Your task to perform on an android device: turn on data saver in the chrome app Image 0: 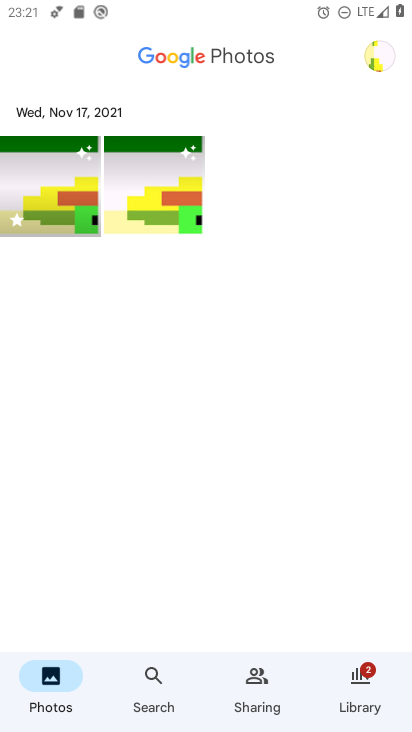
Step 0: press home button
Your task to perform on an android device: turn on data saver in the chrome app Image 1: 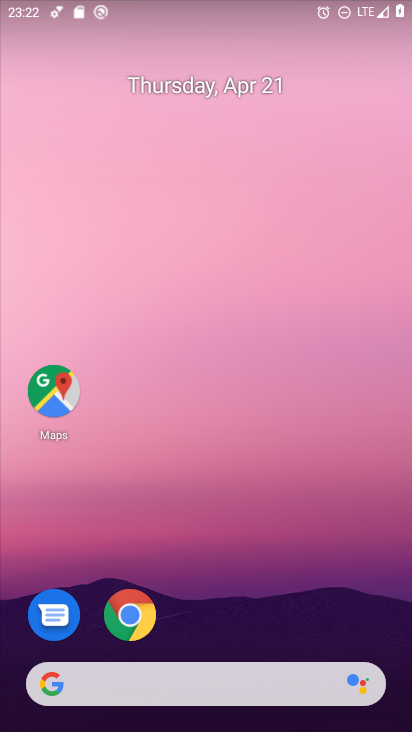
Step 1: click (128, 610)
Your task to perform on an android device: turn on data saver in the chrome app Image 2: 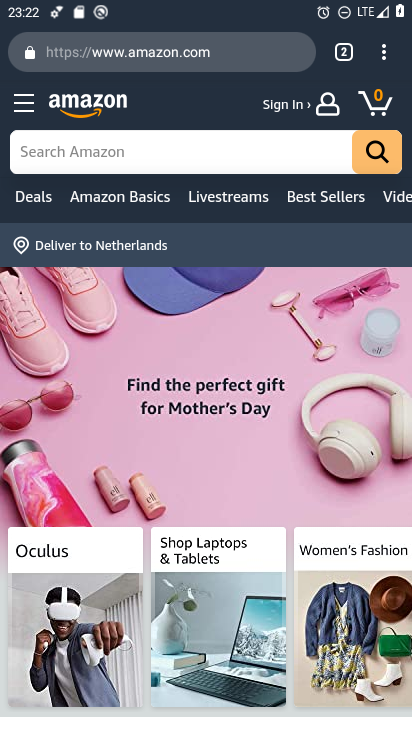
Step 2: click (382, 48)
Your task to perform on an android device: turn on data saver in the chrome app Image 3: 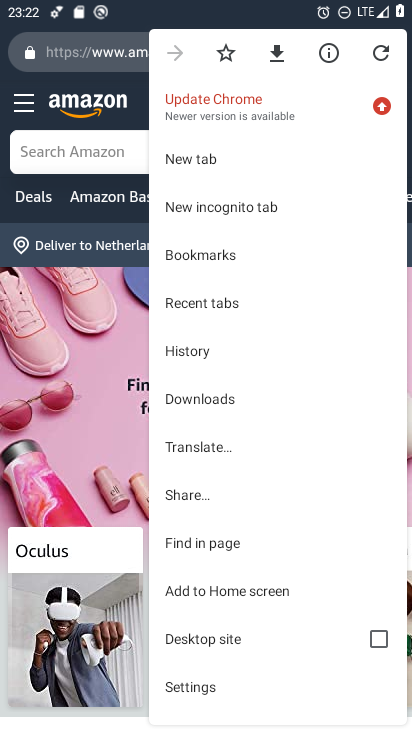
Step 3: click (230, 681)
Your task to perform on an android device: turn on data saver in the chrome app Image 4: 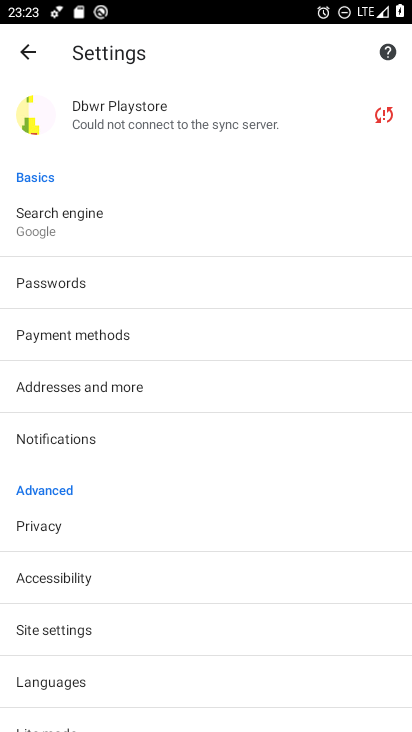
Step 4: drag from (126, 497) to (152, 315)
Your task to perform on an android device: turn on data saver in the chrome app Image 5: 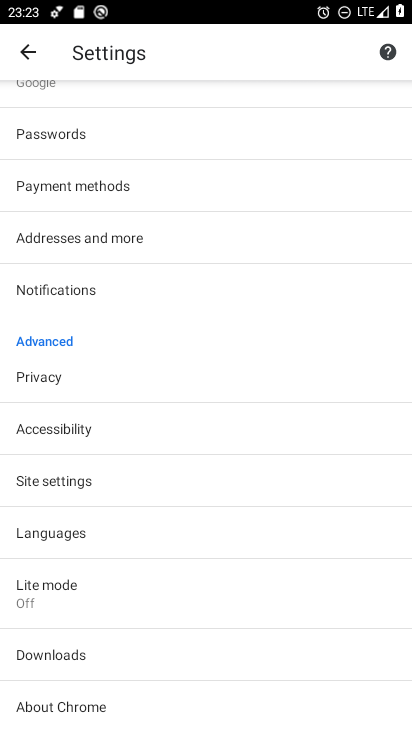
Step 5: click (86, 596)
Your task to perform on an android device: turn on data saver in the chrome app Image 6: 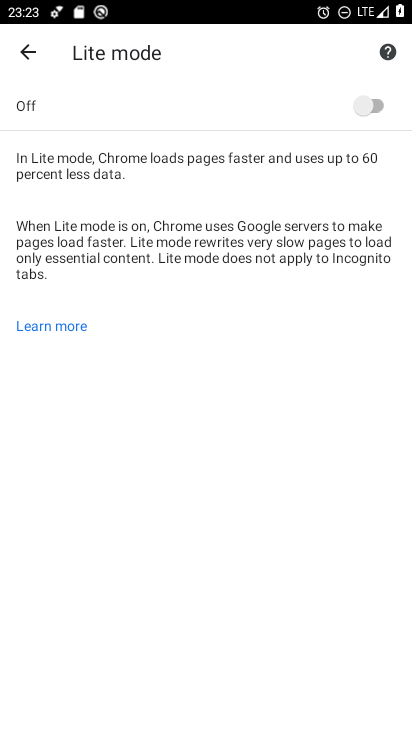
Step 6: click (375, 104)
Your task to perform on an android device: turn on data saver in the chrome app Image 7: 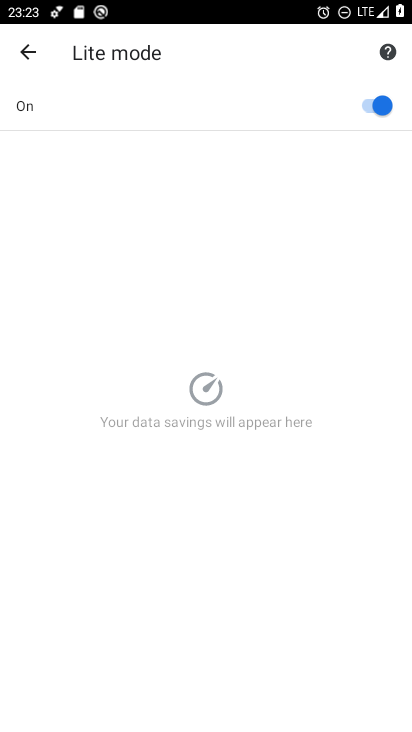
Step 7: task complete